Your task to perform on an android device: Do I have any events this weekend? Image 0: 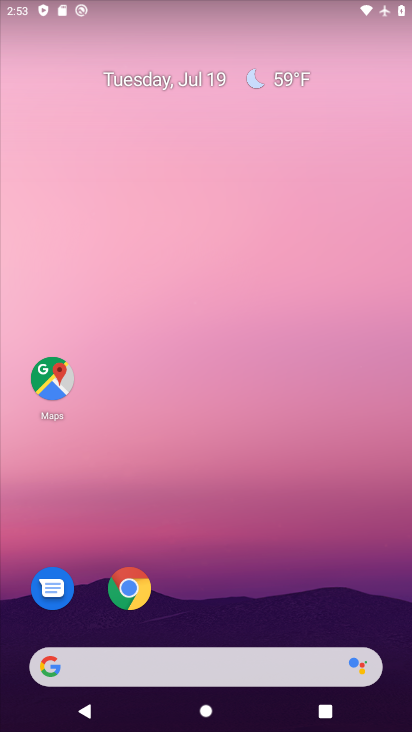
Step 0: press home button
Your task to perform on an android device: Do I have any events this weekend? Image 1: 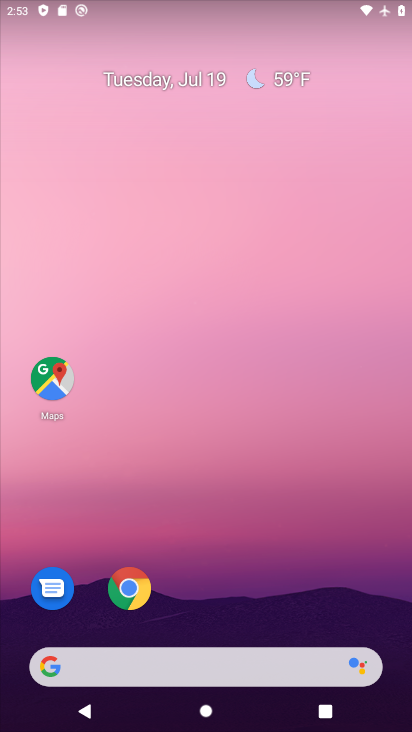
Step 1: drag from (314, 619) to (298, 28)
Your task to perform on an android device: Do I have any events this weekend? Image 2: 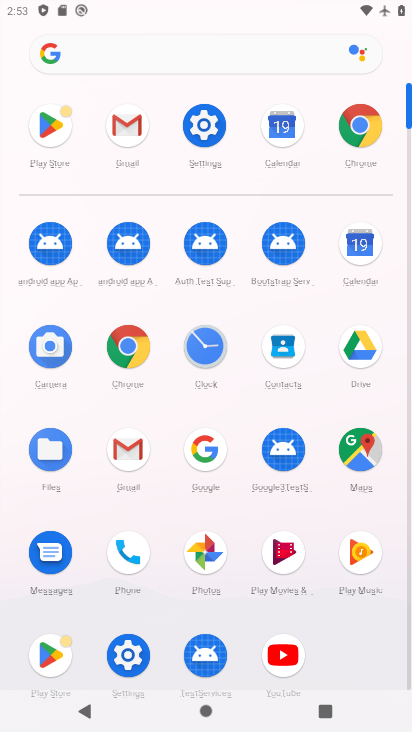
Step 2: click (365, 246)
Your task to perform on an android device: Do I have any events this weekend? Image 3: 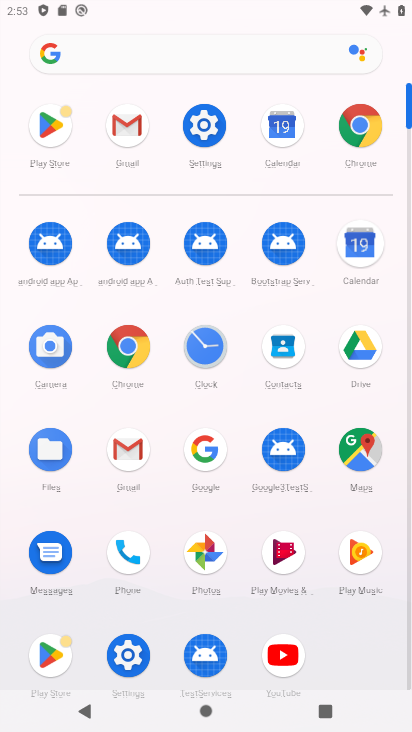
Step 3: click (273, 267)
Your task to perform on an android device: Do I have any events this weekend? Image 4: 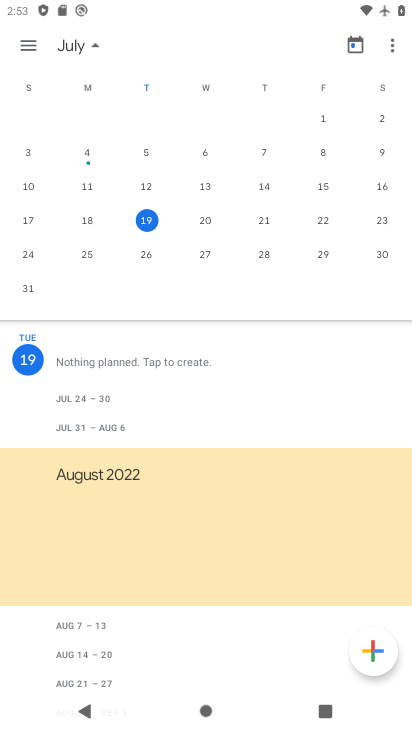
Step 4: click (38, 37)
Your task to perform on an android device: Do I have any events this weekend? Image 5: 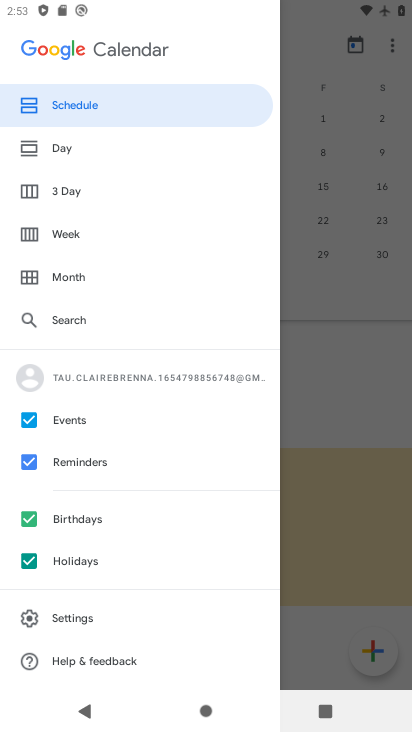
Step 5: click (48, 230)
Your task to perform on an android device: Do I have any events this weekend? Image 6: 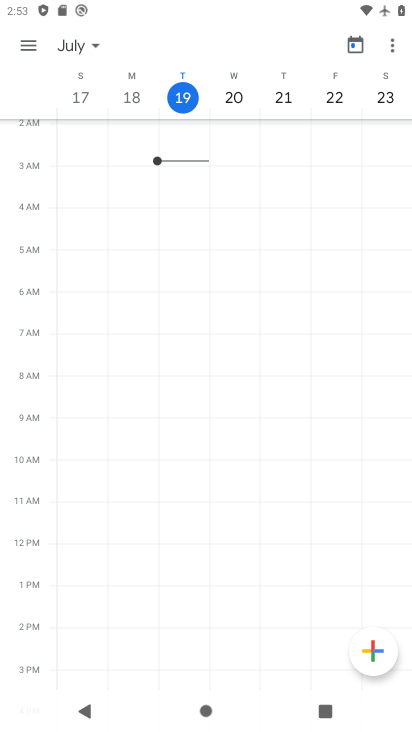
Step 6: click (48, 230)
Your task to perform on an android device: Do I have any events this weekend? Image 7: 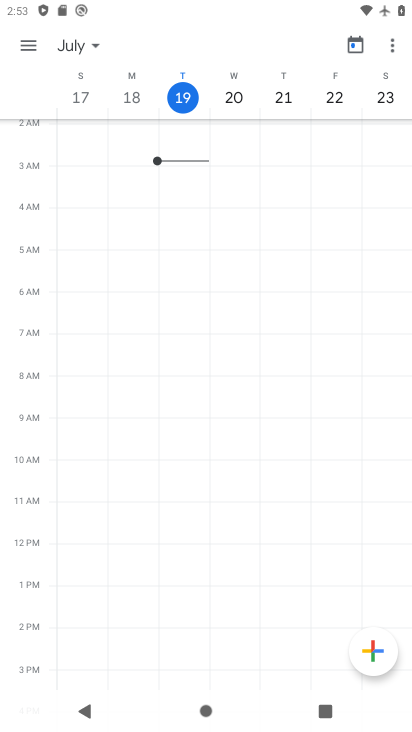
Step 7: task complete